Your task to perform on an android device: Open the calendar and show me this week's events? Image 0: 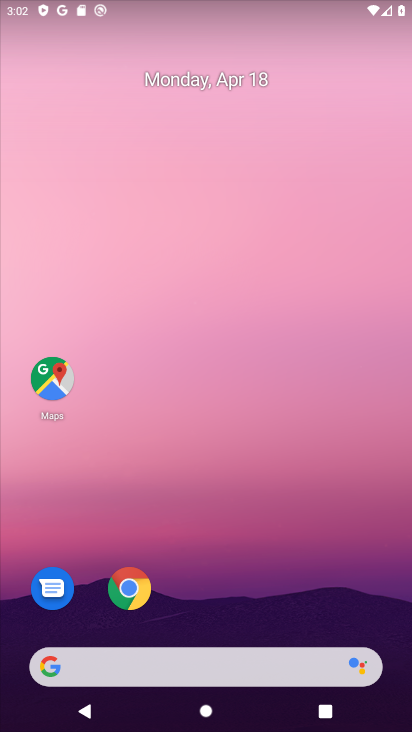
Step 0: drag from (283, 574) to (200, 144)
Your task to perform on an android device: Open the calendar and show me this week's events? Image 1: 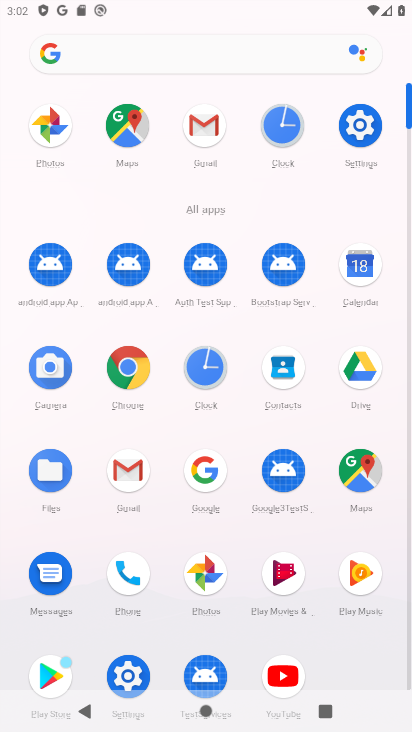
Step 1: click (360, 258)
Your task to perform on an android device: Open the calendar and show me this week's events? Image 2: 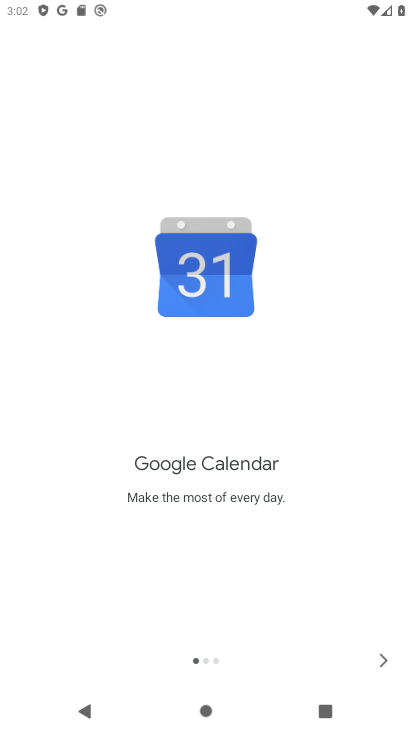
Step 2: click (385, 664)
Your task to perform on an android device: Open the calendar and show me this week's events? Image 3: 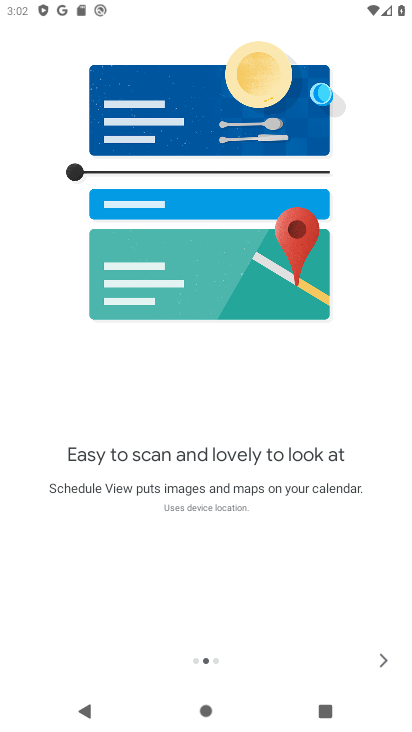
Step 3: click (382, 654)
Your task to perform on an android device: Open the calendar and show me this week's events? Image 4: 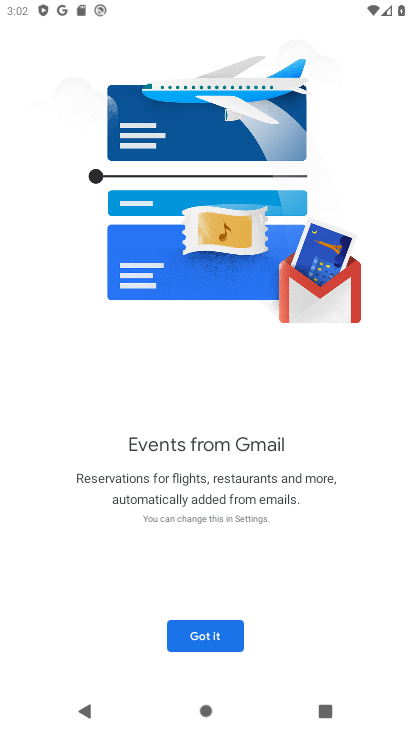
Step 4: click (214, 637)
Your task to perform on an android device: Open the calendar and show me this week's events? Image 5: 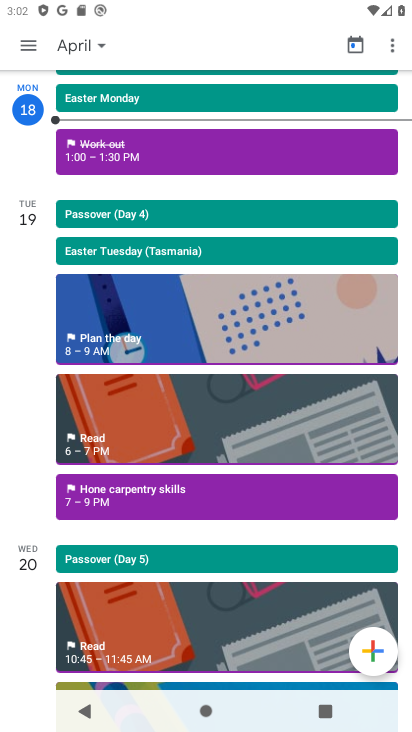
Step 5: click (33, 39)
Your task to perform on an android device: Open the calendar and show me this week's events? Image 6: 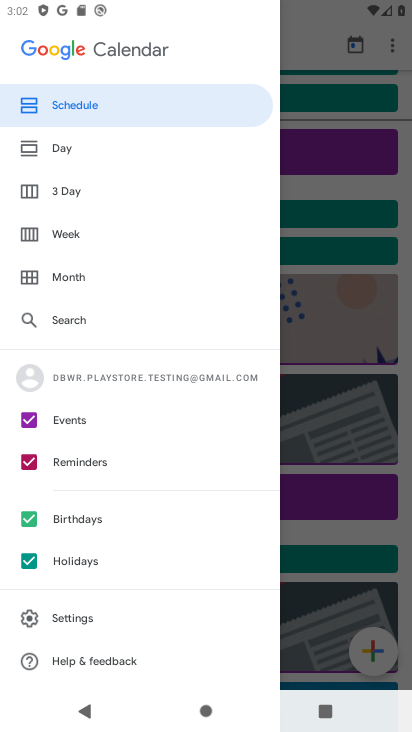
Step 6: click (29, 463)
Your task to perform on an android device: Open the calendar and show me this week's events? Image 7: 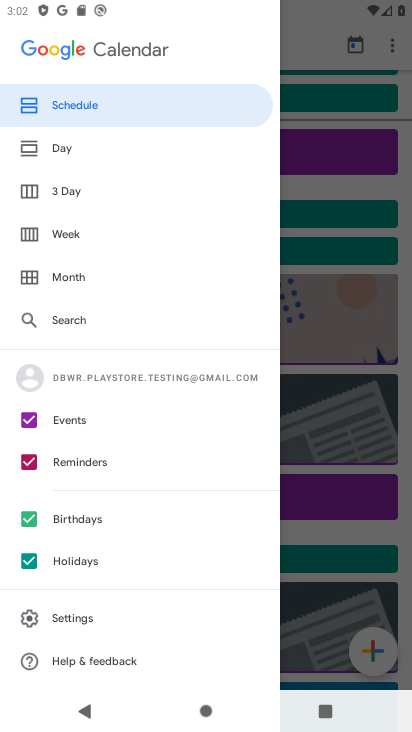
Step 7: click (27, 517)
Your task to perform on an android device: Open the calendar and show me this week's events? Image 8: 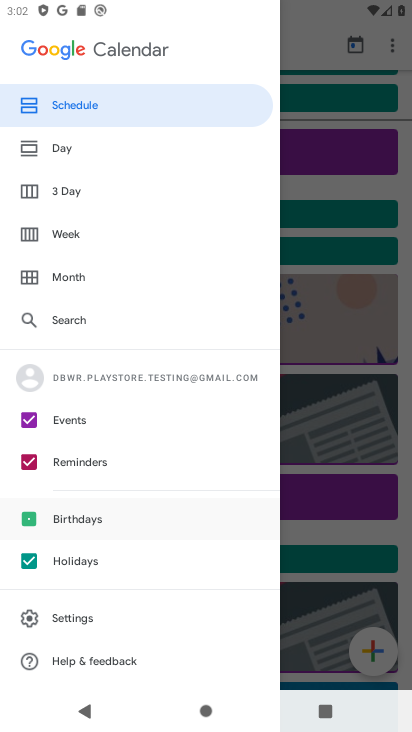
Step 8: click (26, 561)
Your task to perform on an android device: Open the calendar and show me this week's events? Image 9: 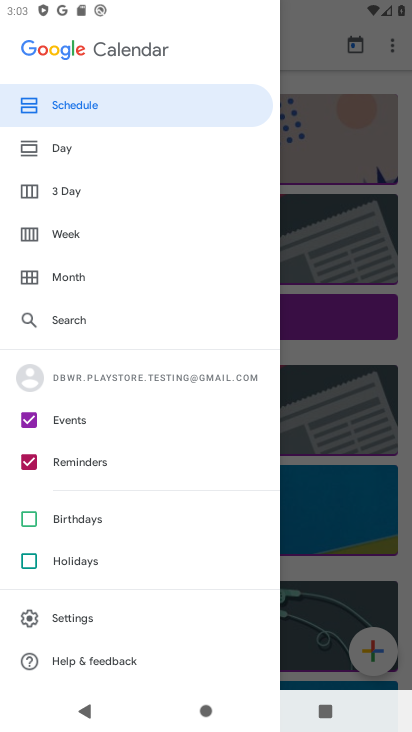
Step 9: click (74, 230)
Your task to perform on an android device: Open the calendar and show me this week's events? Image 10: 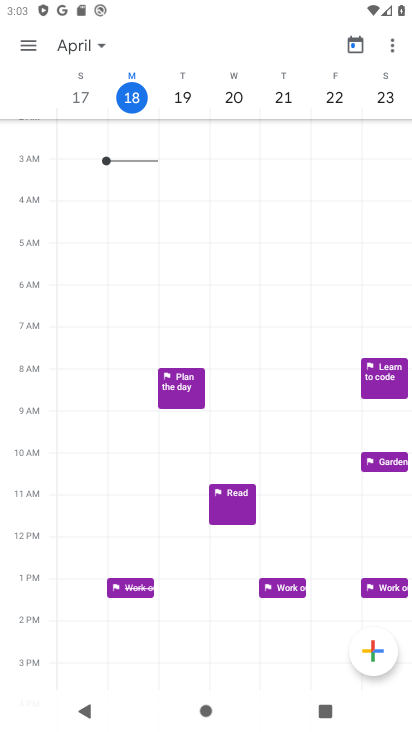
Step 10: task complete